Your task to perform on an android device: Go to Google maps Image 0: 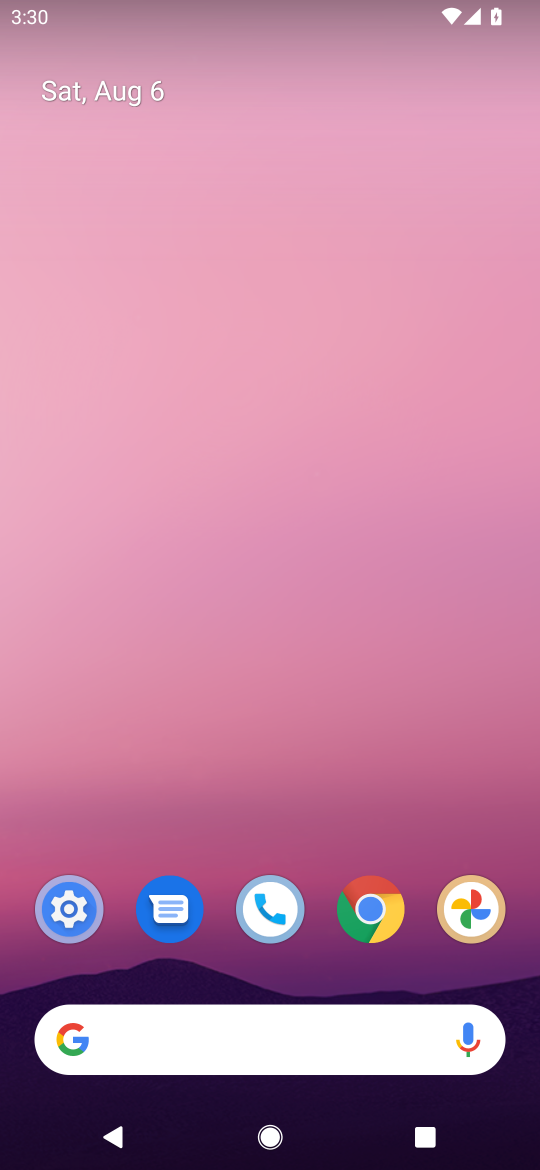
Step 0: drag from (241, 535) to (258, 18)
Your task to perform on an android device: Go to Google maps Image 1: 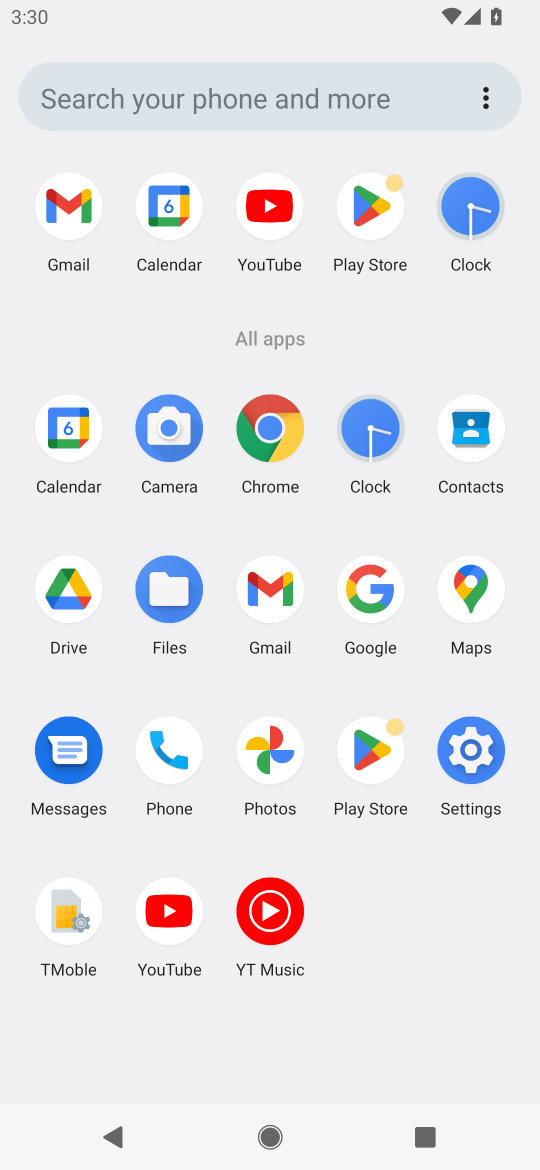
Step 1: click (477, 598)
Your task to perform on an android device: Go to Google maps Image 2: 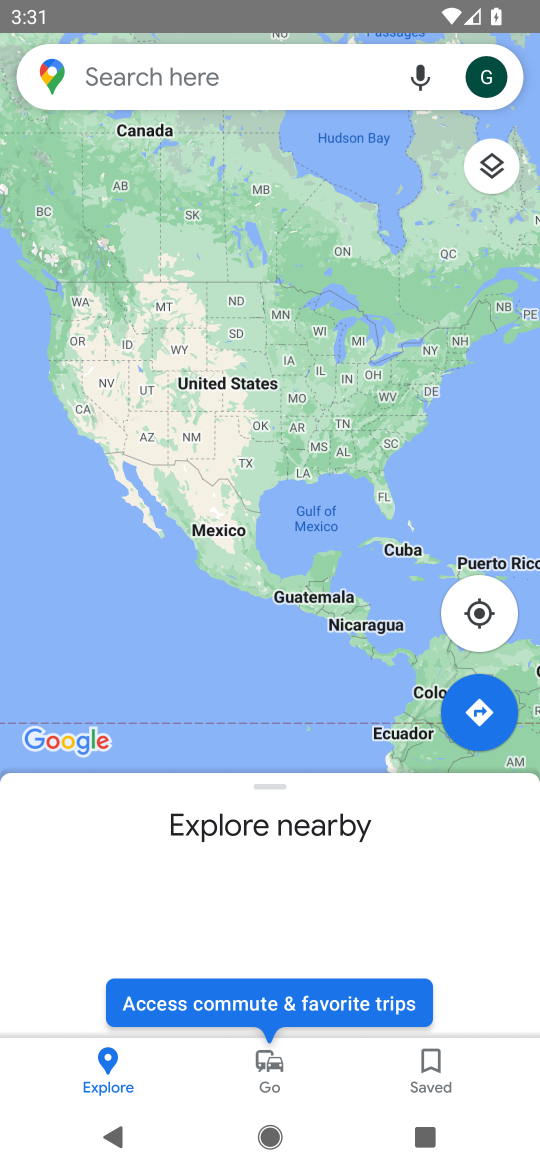
Step 2: task complete